Your task to perform on an android device: toggle data saver in the chrome app Image 0: 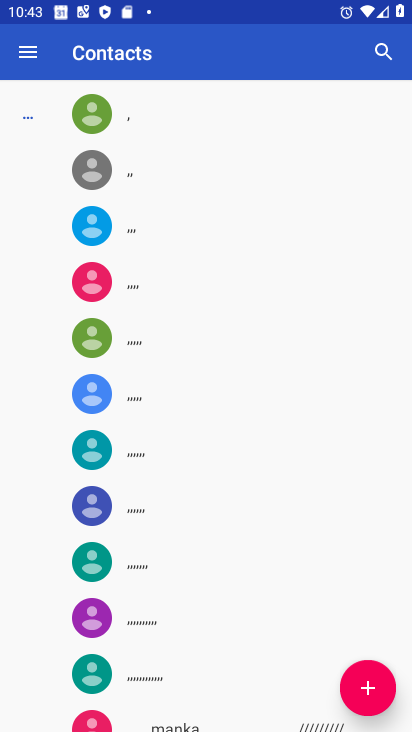
Step 0: press home button
Your task to perform on an android device: toggle data saver in the chrome app Image 1: 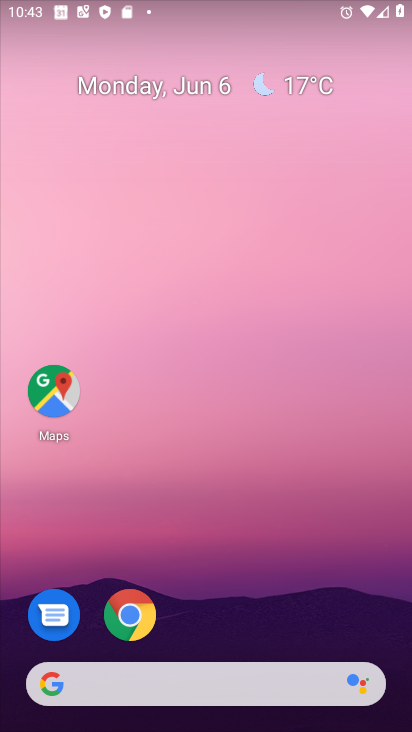
Step 1: click (124, 608)
Your task to perform on an android device: toggle data saver in the chrome app Image 2: 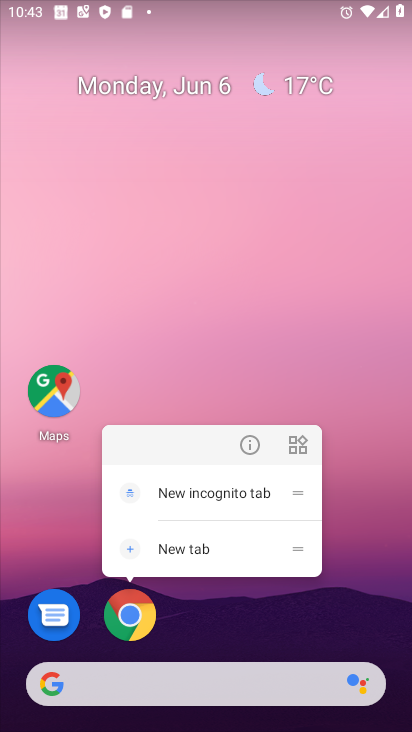
Step 2: click (124, 608)
Your task to perform on an android device: toggle data saver in the chrome app Image 3: 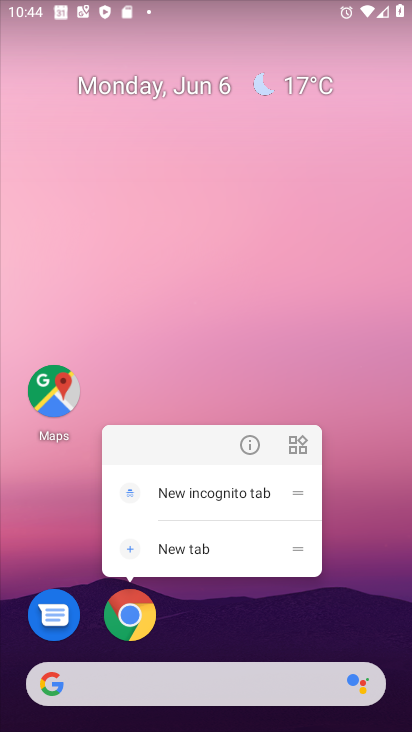
Step 3: click (131, 615)
Your task to perform on an android device: toggle data saver in the chrome app Image 4: 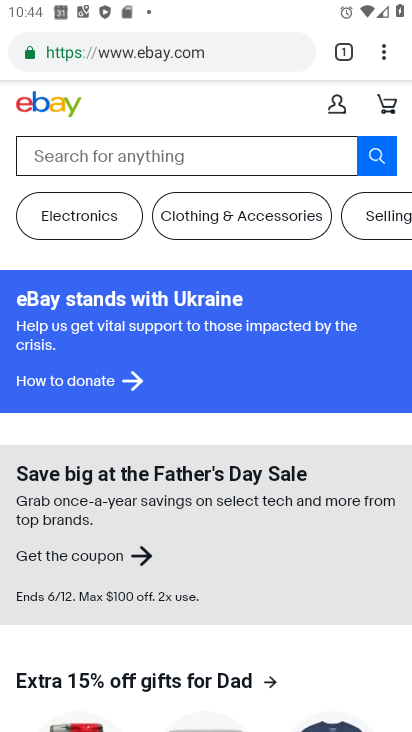
Step 4: click (382, 45)
Your task to perform on an android device: toggle data saver in the chrome app Image 5: 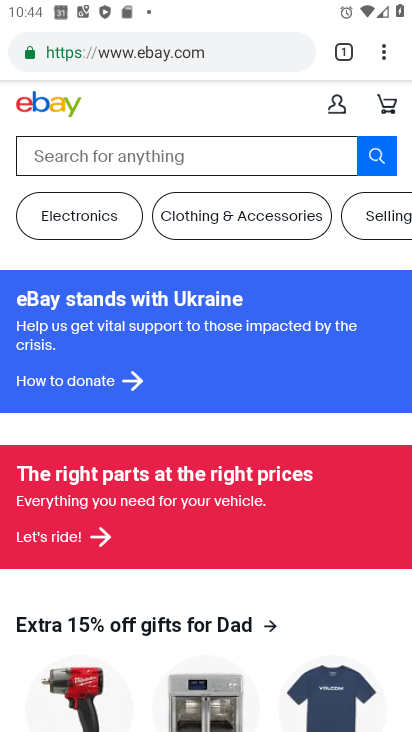
Step 5: click (381, 47)
Your task to perform on an android device: toggle data saver in the chrome app Image 6: 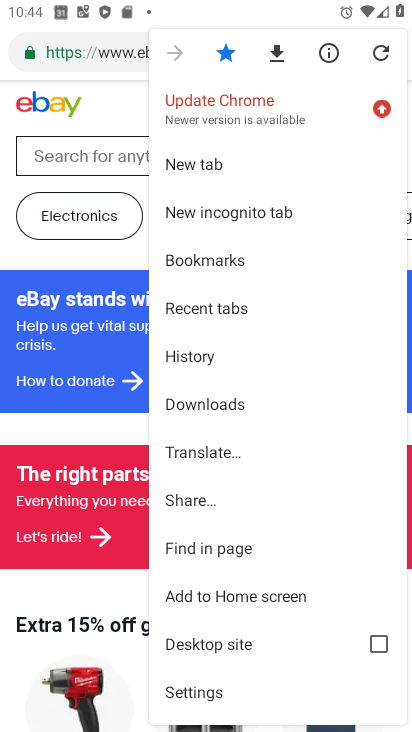
Step 6: click (251, 691)
Your task to perform on an android device: toggle data saver in the chrome app Image 7: 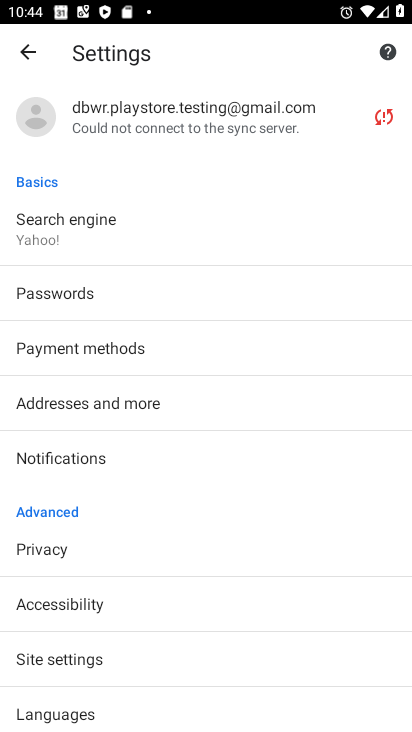
Step 7: drag from (124, 680) to (121, 249)
Your task to perform on an android device: toggle data saver in the chrome app Image 8: 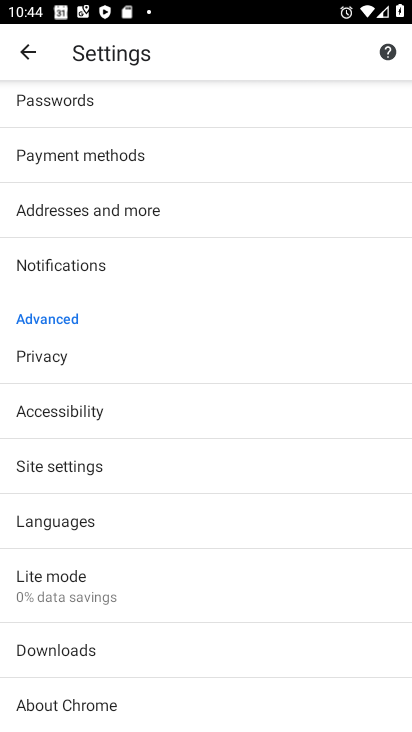
Step 8: click (134, 584)
Your task to perform on an android device: toggle data saver in the chrome app Image 9: 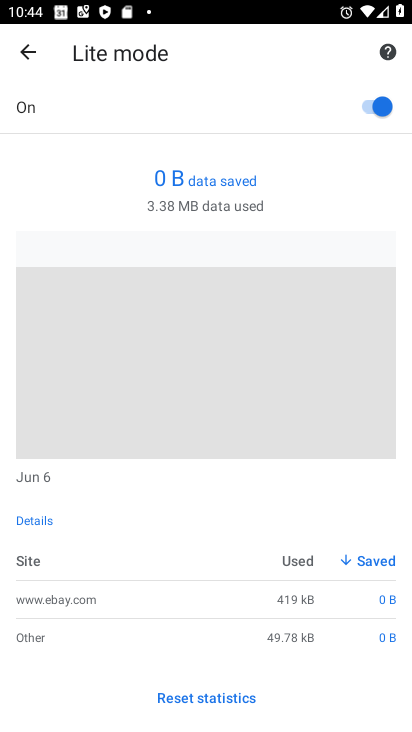
Step 9: task complete